Your task to perform on an android device: Show me recent news Image 0: 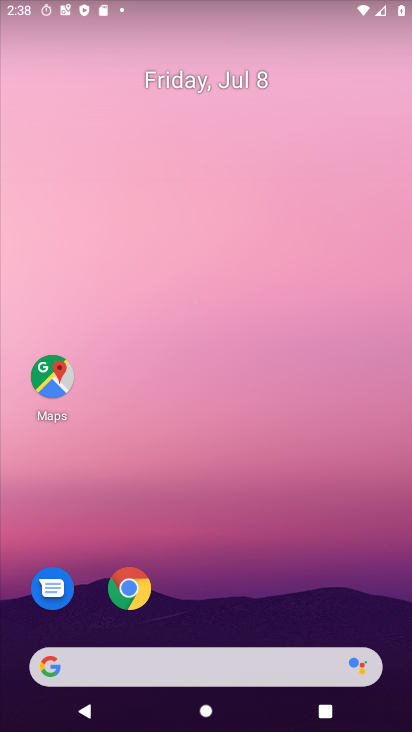
Step 0: press home button
Your task to perform on an android device: Show me recent news Image 1: 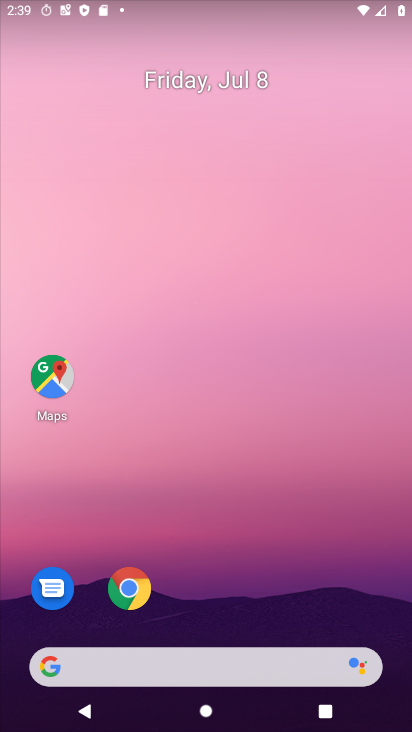
Step 1: click (45, 664)
Your task to perform on an android device: Show me recent news Image 2: 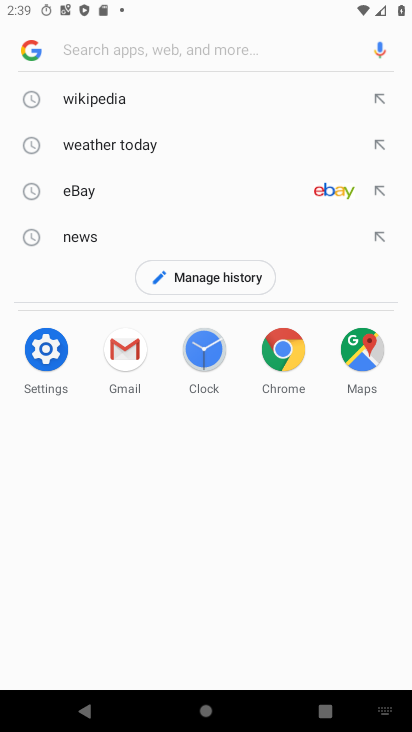
Step 2: type "recent news"
Your task to perform on an android device: Show me recent news Image 3: 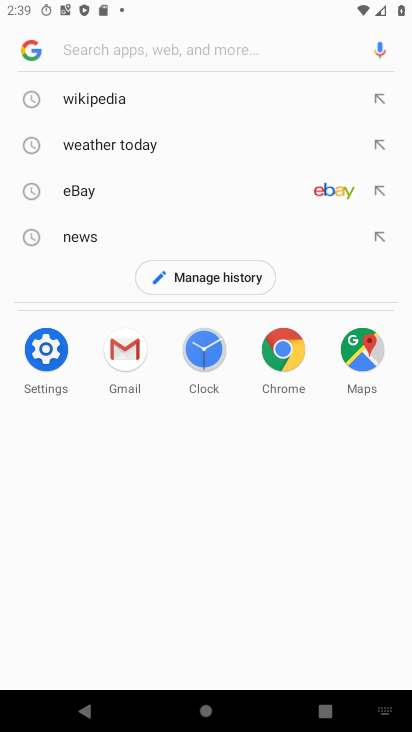
Step 3: click (230, 35)
Your task to perform on an android device: Show me recent news Image 4: 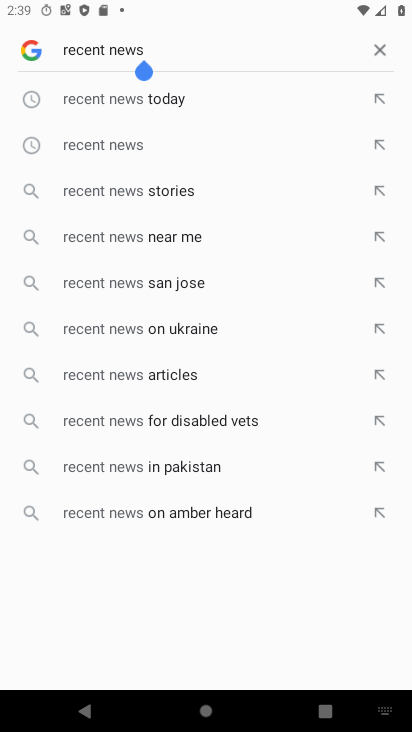
Step 4: click (99, 148)
Your task to perform on an android device: Show me recent news Image 5: 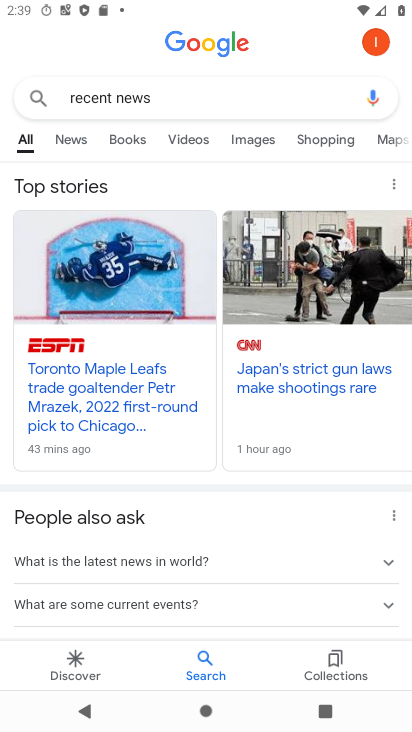
Step 5: task complete